Your task to perform on an android device: open sync settings in chrome Image 0: 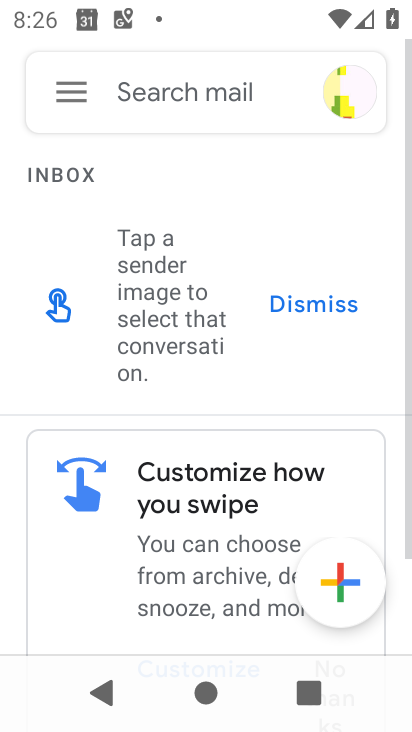
Step 0: press home button
Your task to perform on an android device: open sync settings in chrome Image 1: 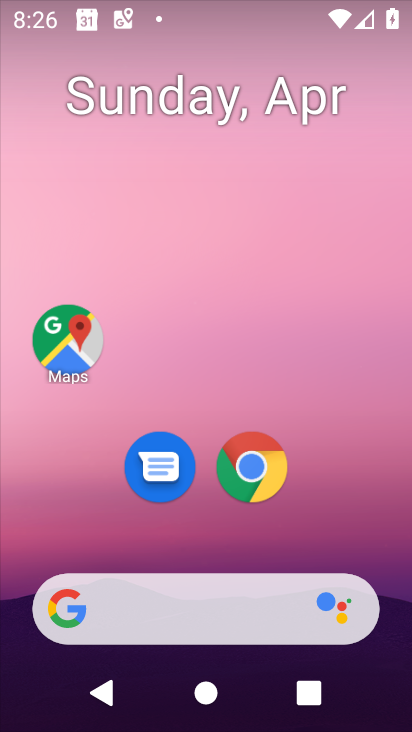
Step 1: click (246, 466)
Your task to perform on an android device: open sync settings in chrome Image 2: 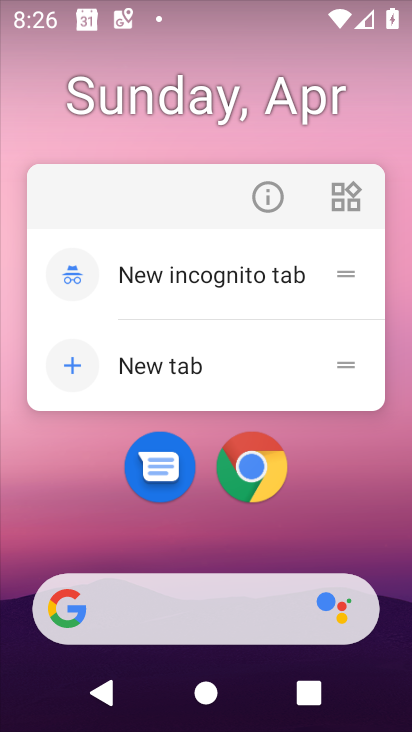
Step 2: click (246, 466)
Your task to perform on an android device: open sync settings in chrome Image 3: 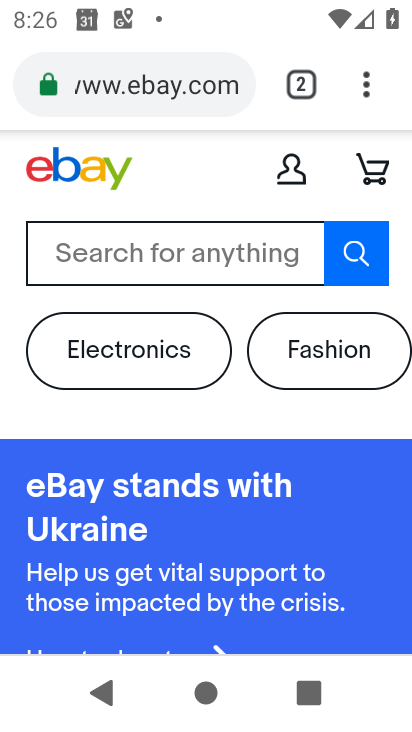
Step 3: click (357, 83)
Your task to perform on an android device: open sync settings in chrome Image 4: 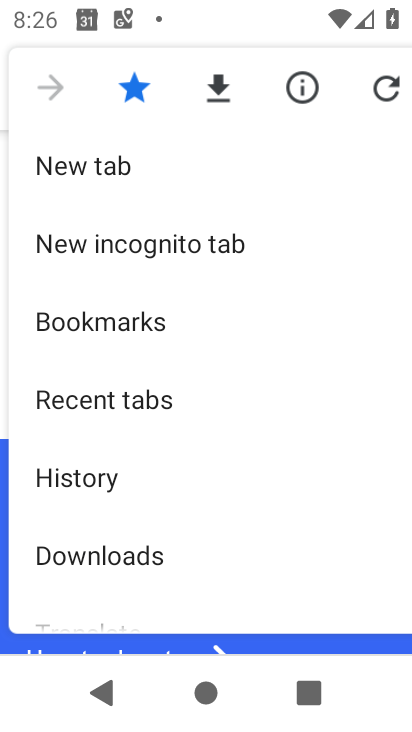
Step 4: drag from (143, 520) to (166, 276)
Your task to perform on an android device: open sync settings in chrome Image 5: 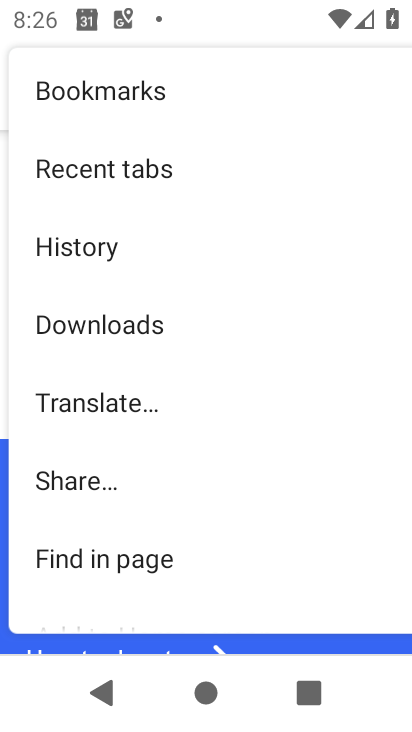
Step 5: drag from (116, 580) to (166, 377)
Your task to perform on an android device: open sync settings in chrome Image 6: 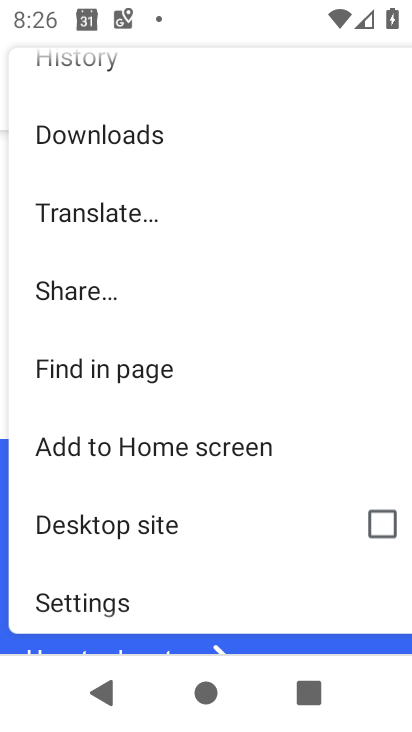
Step 6: click (155, 595)
Your task to perform on an android device: open sync settings in chrome Image 7: 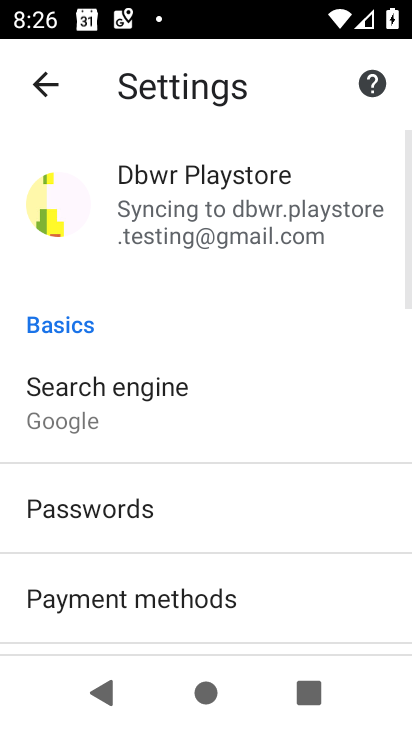
Step 7: click (216, 234)
Your task to perform on an android device: open sync settings in chrome Image 8: 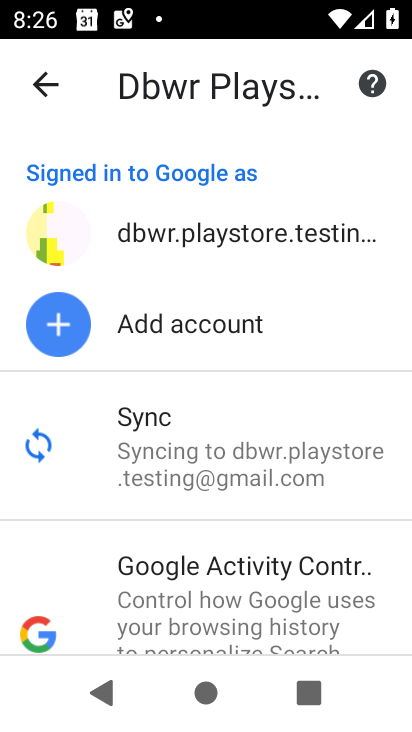
Step 8: click (221, 476)
Your task to perform on an android device: open sync settings in chrome Image 9: 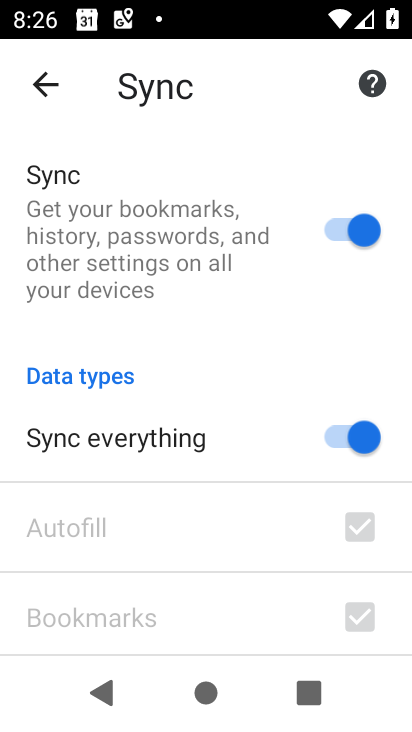
Step 9: task complete